Your task to perform on an android device: What is the news today? Image 0: 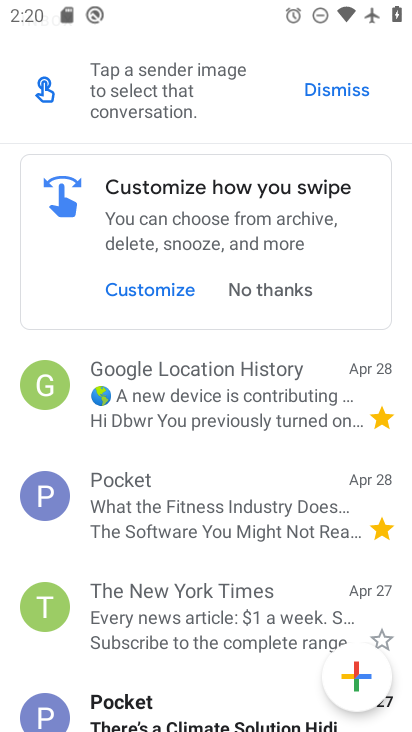
Step 0: press home button
Your task to perform on an android device: What is the news today? Image 1: 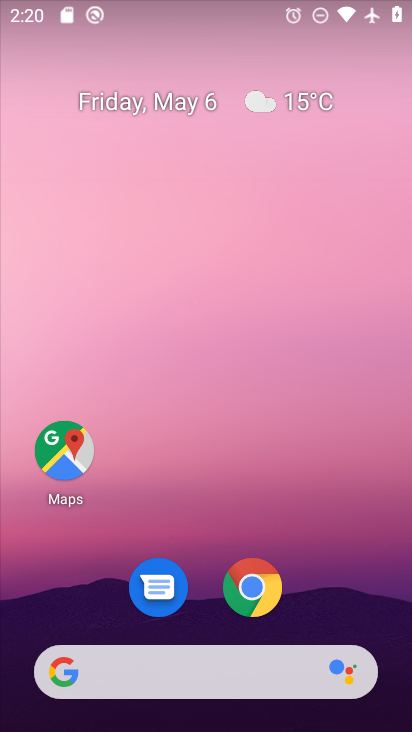
Step 1: click (57, 668)
Your task to perform on an android device: What is the news today? Image 2: 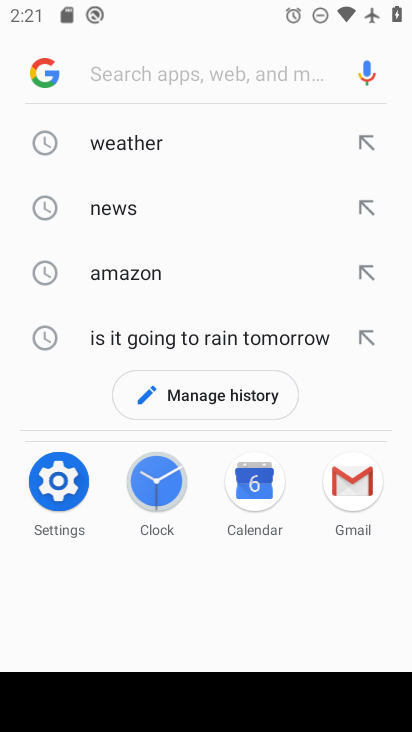
Step 2: type "what is the news today?"
Your task to perform on an android device: What is the news today? Image 3: 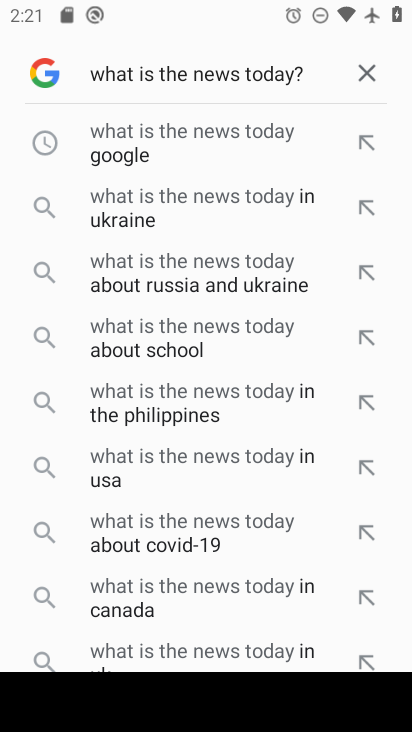
Step 3: click (195, 145)
Your task to perform on an android device: What is the news today? Image 4: 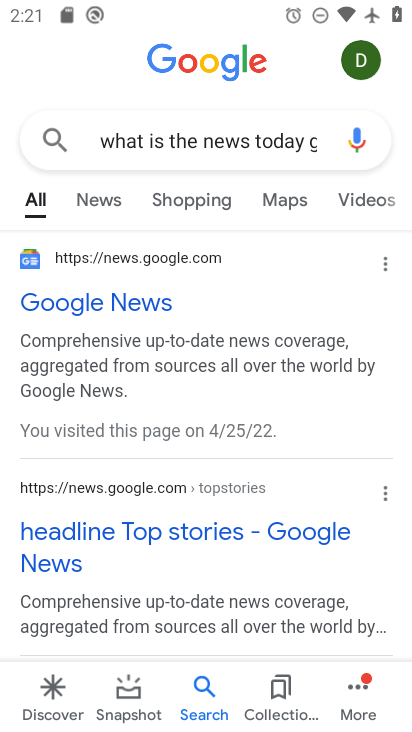
Step 4: drag from (203, 375) to (200, 234)
Your task to perform on an android device: What is the news today? Image 5: 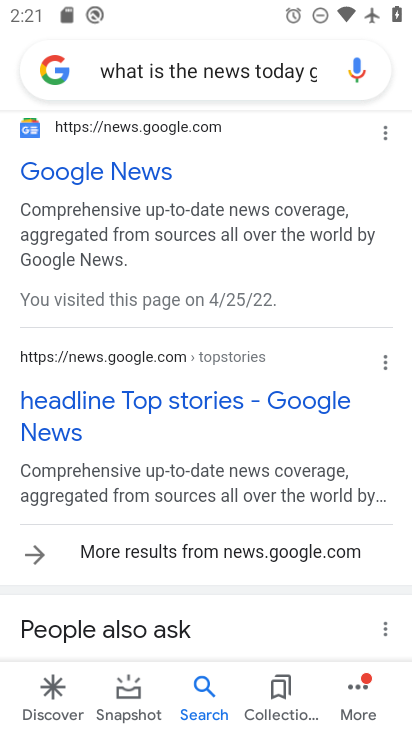
Step 5: drag from (225, 277) to (171, 671)
Your task to perform on an android device: What is the news today? Image 6: 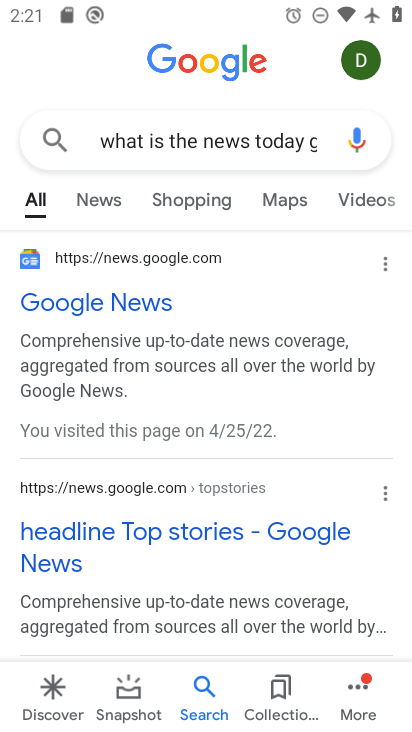
Step 6: click (92, 194)
Your task to perform on an android device: What is the news today? Image 7: 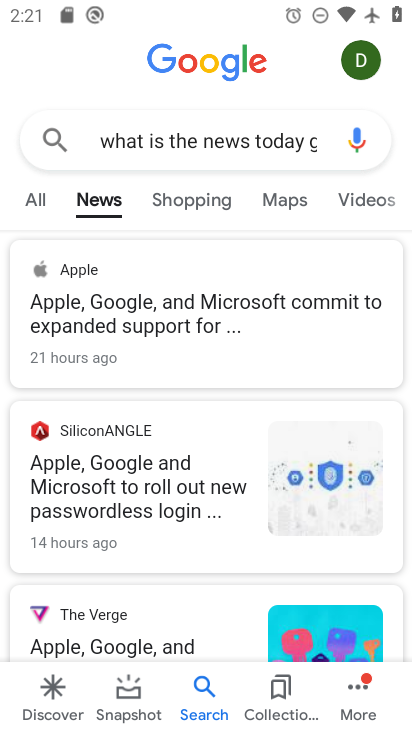
Step 7: task complete